Your task to perform on an android device: Go to accessibility settings Image 0: 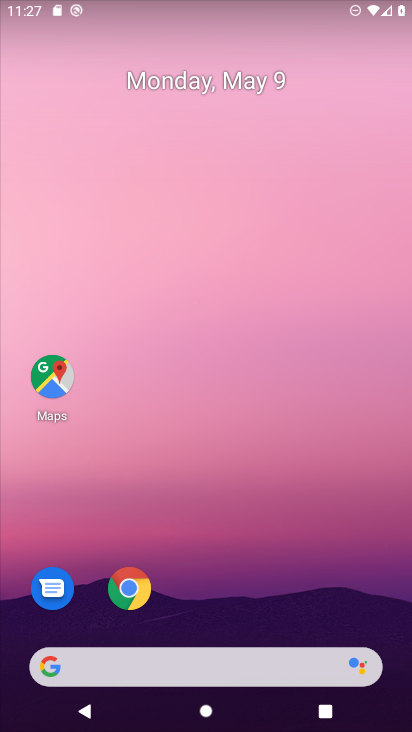
Step 0: drag from (244, 603) to (256, 7)
Your task to perform on an android device: Go to accessibility settings Image 1: 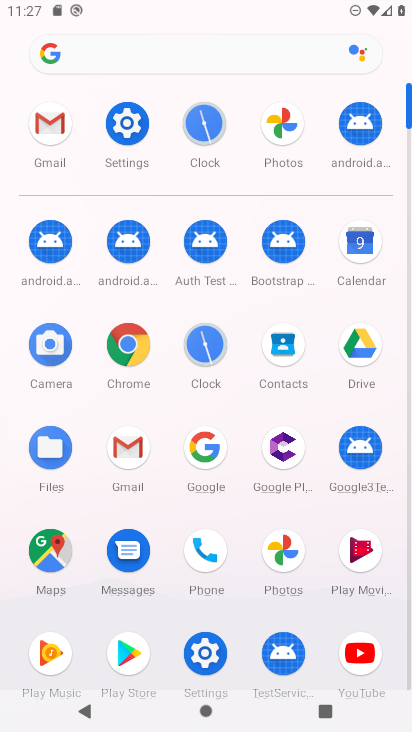
Step 1: click (120, 155)
Your task to perform on an android device: Go to accessibility settings Image 2: 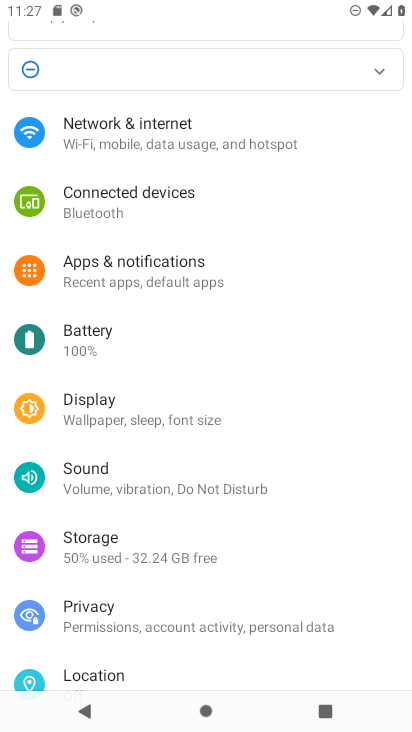
Step 2: drag from (151, 590) to (159, 93)
Your task to perform on an android device: Go to accessibility settings Image 3: 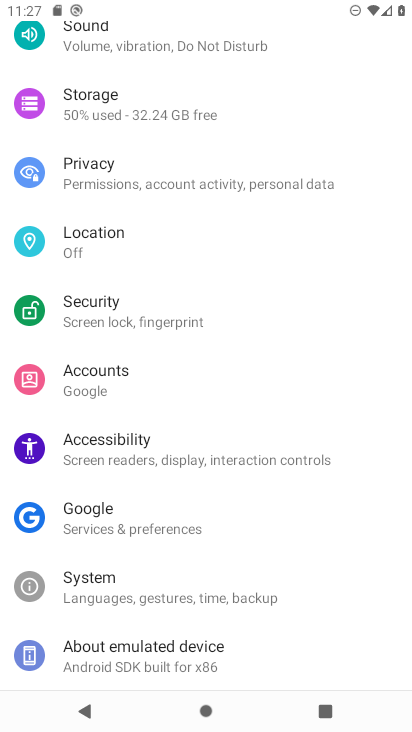
Step 3: click (189, 465)
Your task to perform on an android device: Go to accessibility settings Image 4: 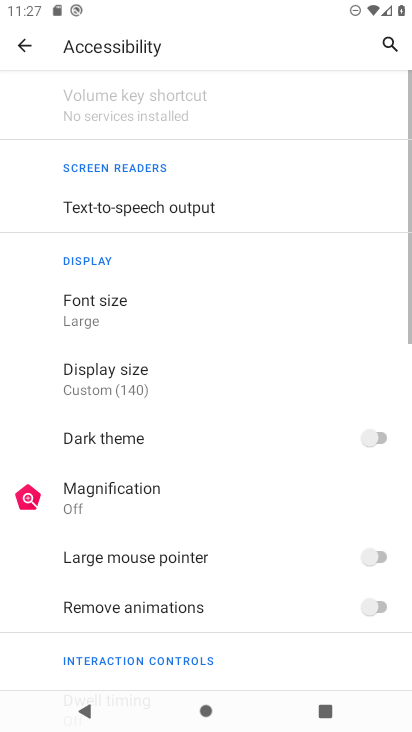
Step 4: task complete